Your task to perform on an android device: Search for sushi restaurants on Maps Image 0: 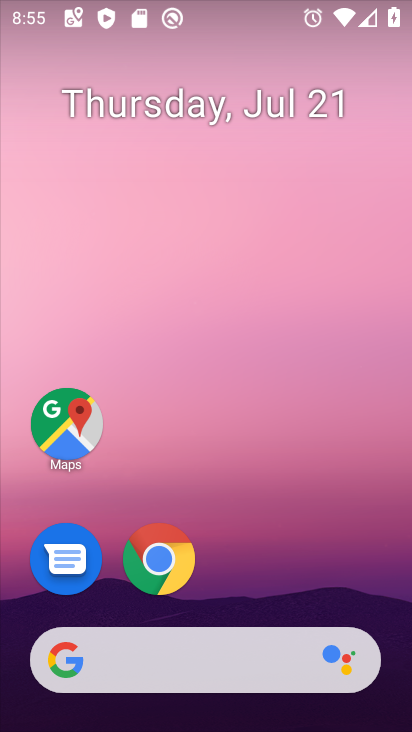
Step 0: drag from (342, 573) to (337, 153)
Your task to perform on an android device: Search for sushi restaurants on Maps Image 1: 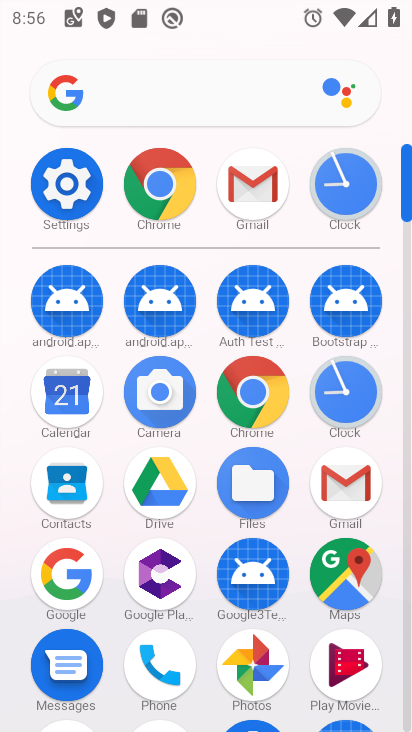
Step 1: click (346, 567)
Your task to perform on an android device: Search for sushi restaurants on Maps Image 2: 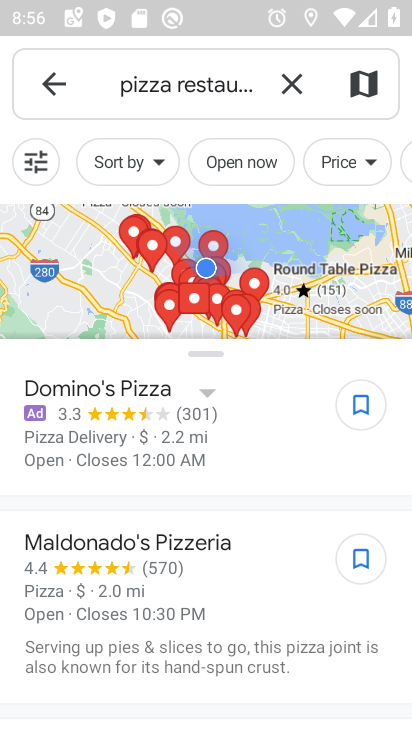
Step 2: press back button
Your task to perform on an android device: Search for sushi restaurants on Maps Image 3: 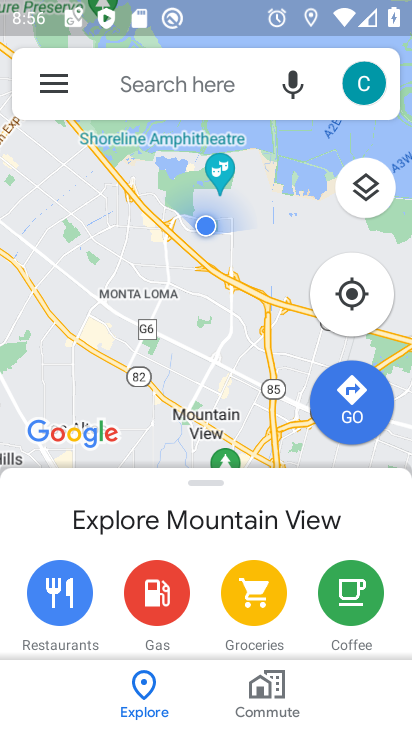
Step 3: click (241, 97)
Your task to perform on an android device: Search for sushi restaurants on Maps Image 4: 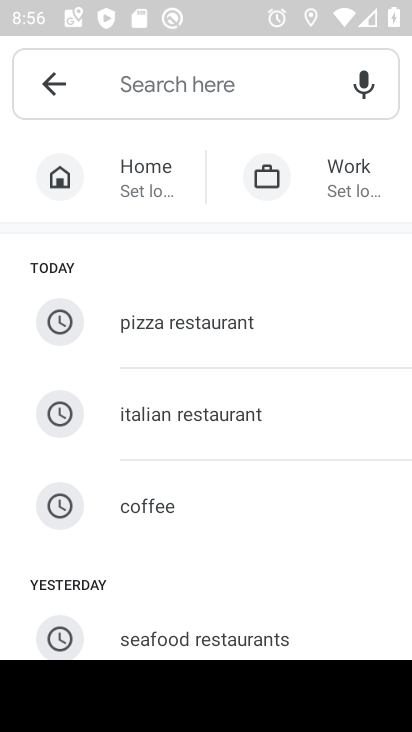
Step 4: type "sushi restaurants"
Your task to perform on an android device: Search for sushi restaurants on Maps Image 5: 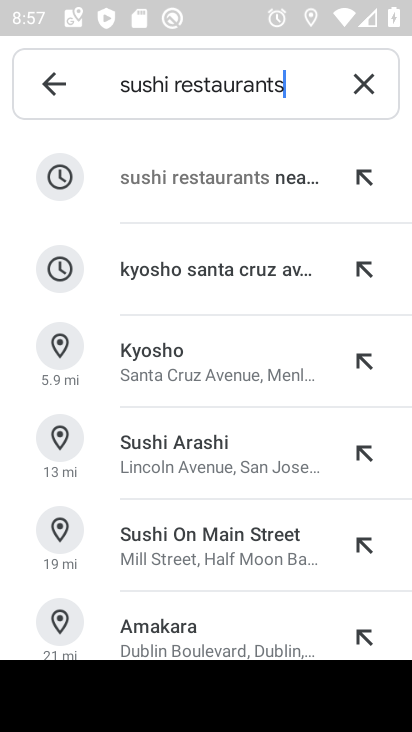
Step 5: click (264, 170)
Your task to perform on an android device: Search for sushi restaurants on Maps Image 6: 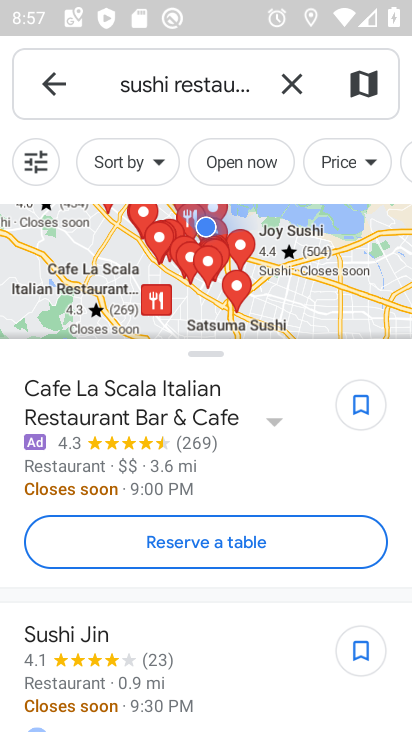
Step 6: task complete